Your task to perform on an android device: Turn on the flashlight Image 0: 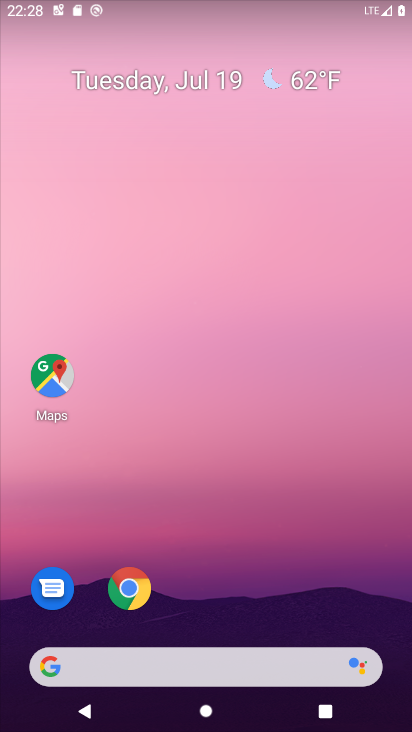
Step 0: drag from (167, 442) to (221, 60)
Your task to perform on an android device: Turn on the flashlight Image 1: 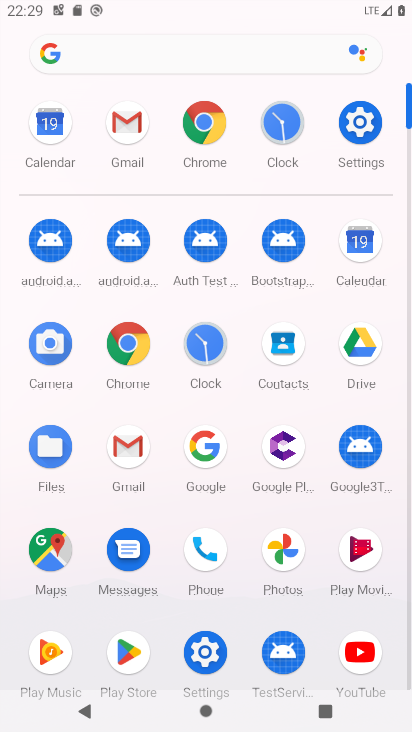
Step 1: click (363, 135)
Your task to perform on an android device: Turn on the flashlight Image 2: 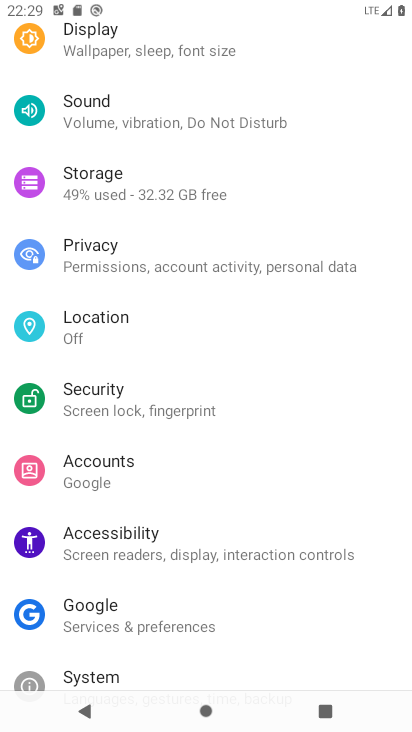
Step 2: task complete